Your task to perform on an android device: toggle notification dots Image 0: 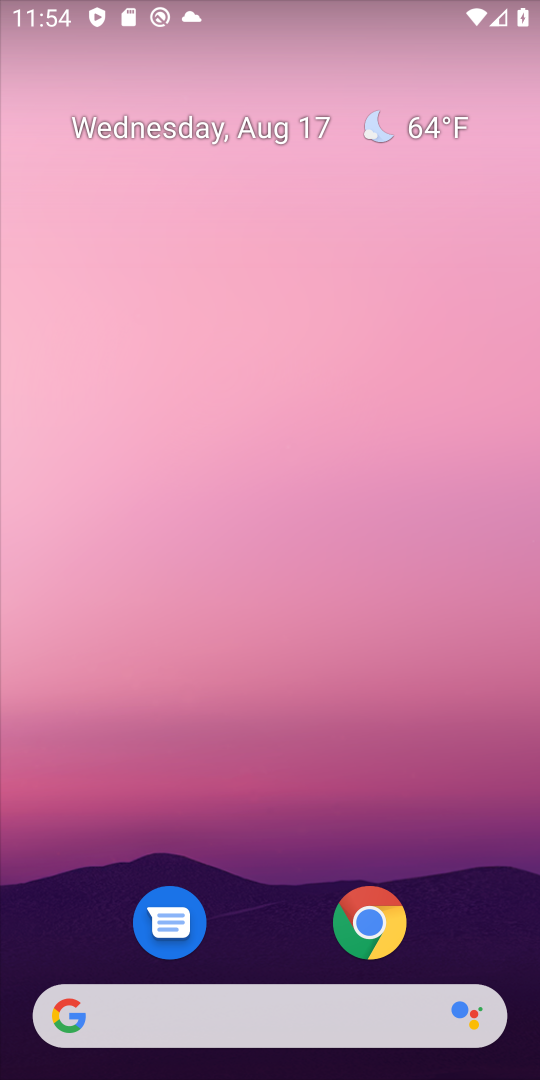
Step 0: drag from (252, 897) to (339, 69)
Your task to perform on an android device: toggle notification dots Image 1: 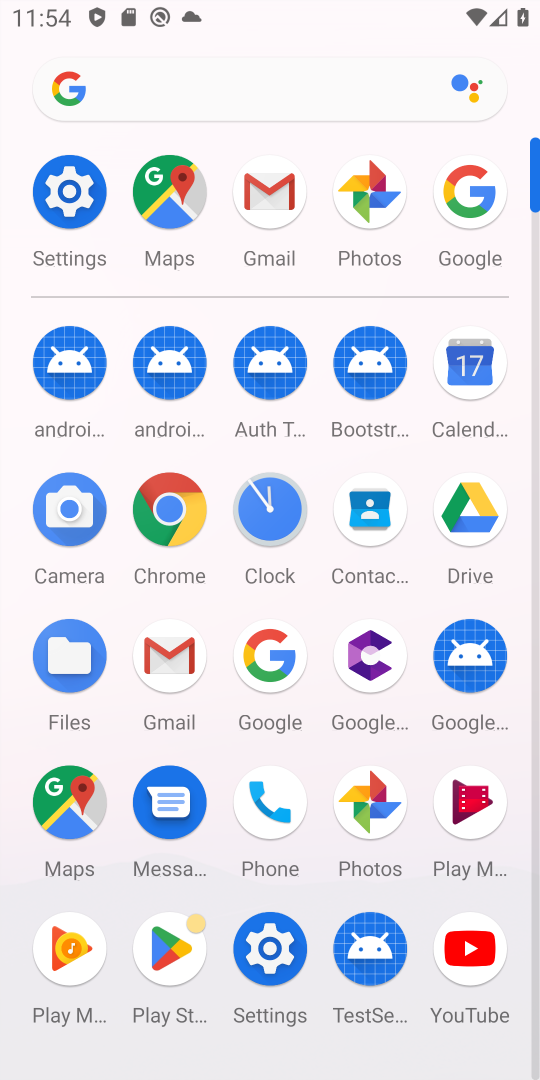
Step 1: click (71, 190)
Your task to perform on an android device: toggle notification dots Image 2: 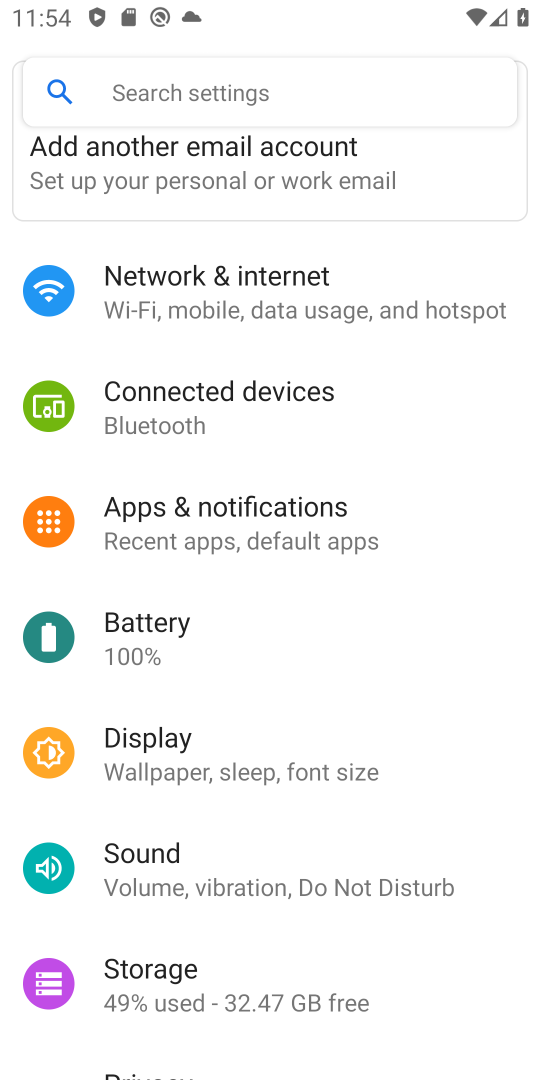
Step 2: click (251, 515)
Your task to perform on an android device: toggle notification dots Image 3: 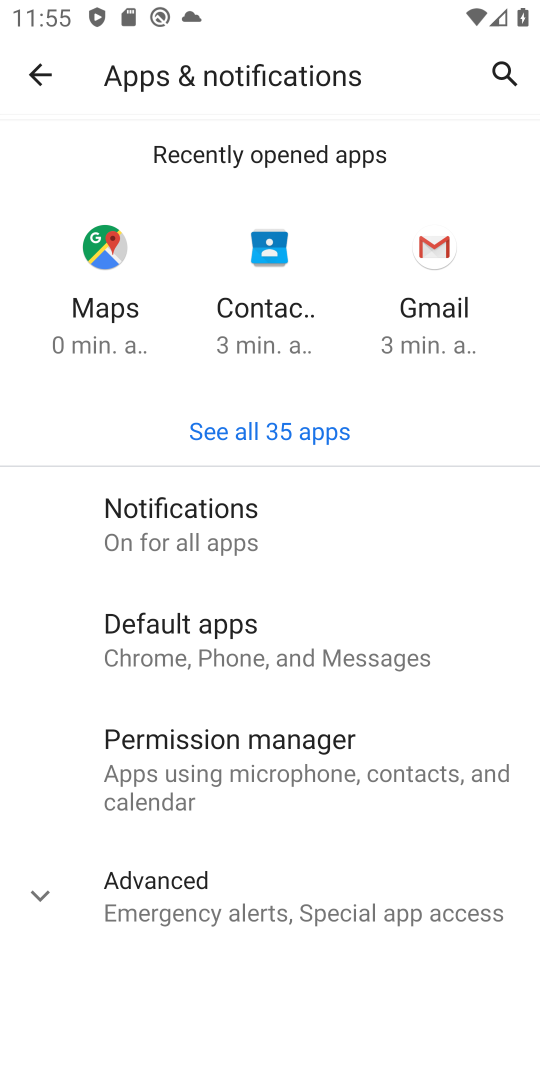
Step 3: click (181, 509)
Your task to perform on an android device: toggle notification dots Image 4: 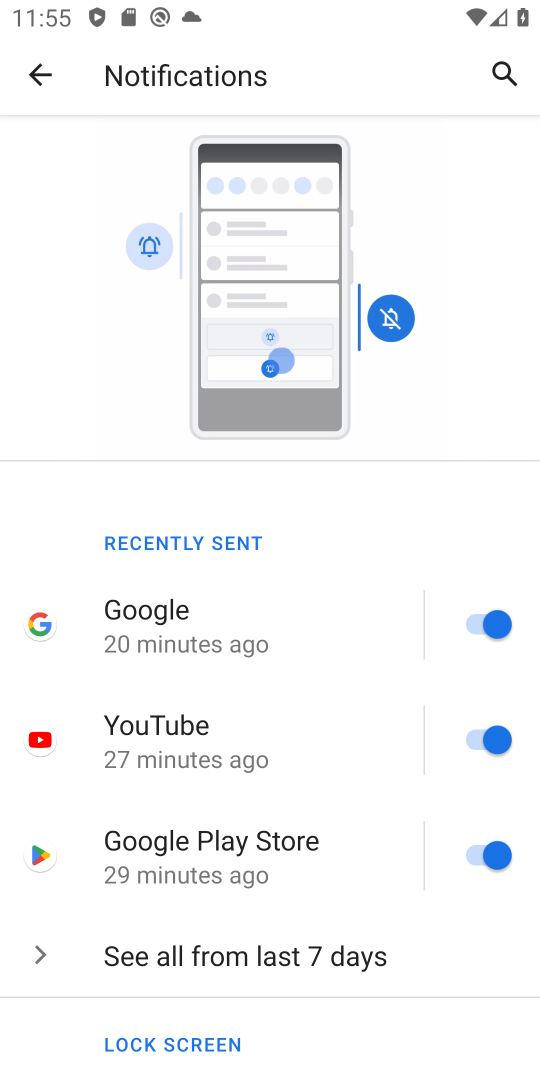
Step 4: drag from (317, 989) to (317, 488)
Your task to perform on an android device: toggle notification dots Image 5: 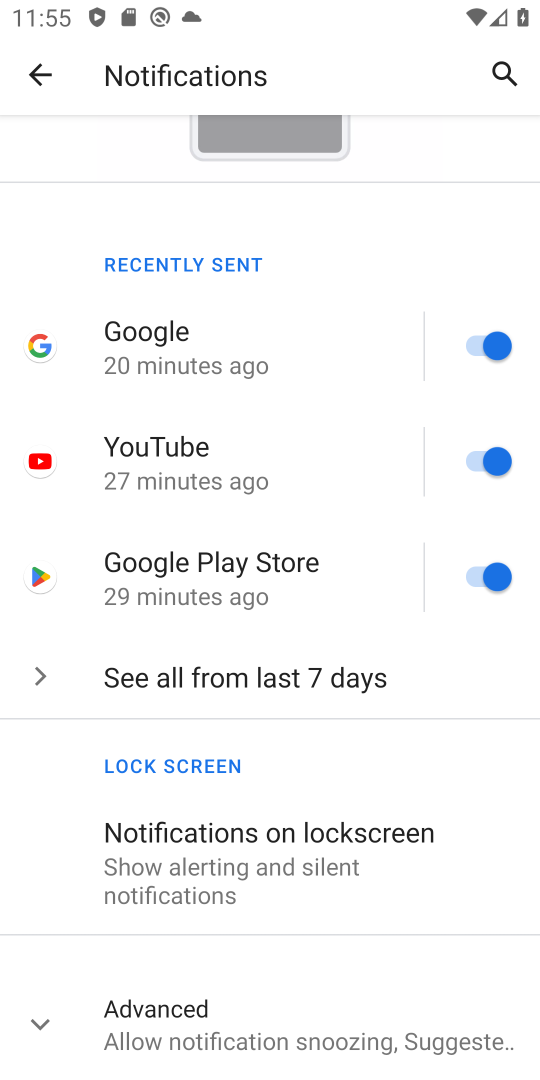
Step 5: drag from (337, 960) to (271, 520)
Your task to perform on an android device: toggle notification dots Image 6: 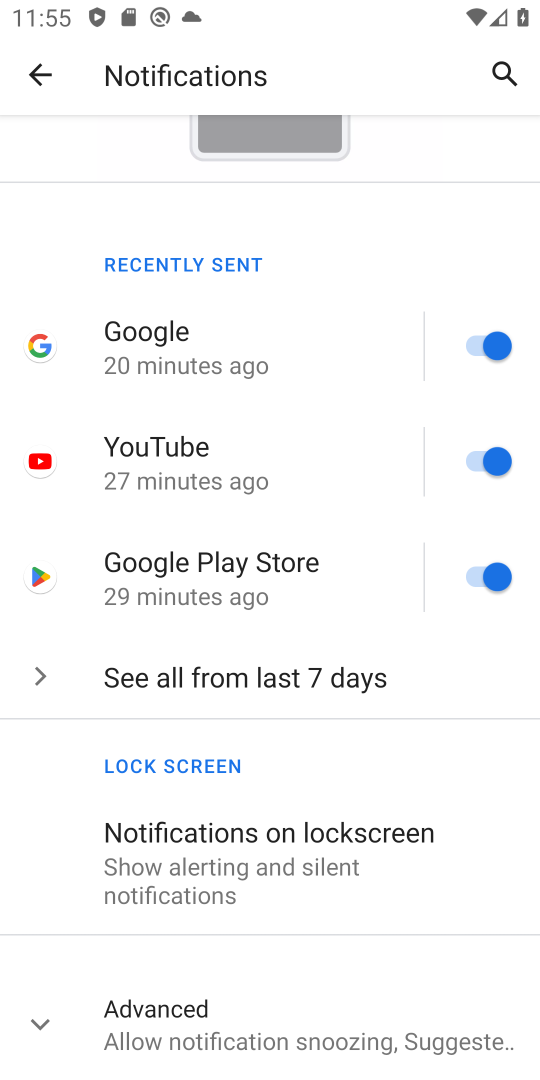
Step 6: click (42, 1014)
Your task to perform on an android device: toggle notification dots Image 7: 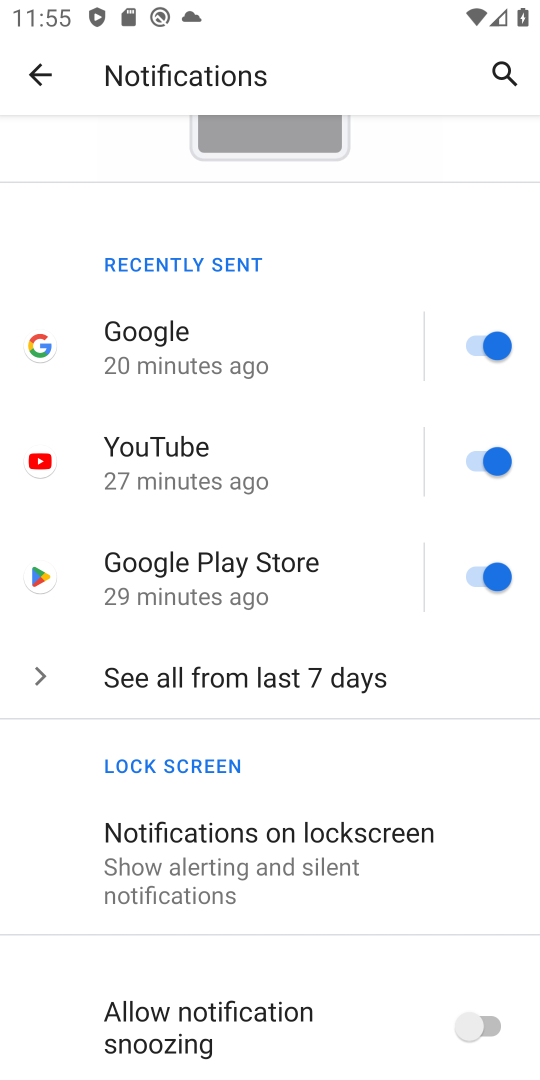
Step 7: drag from (345, 920) to (333, 624)
Your task to perform on an android device: toggle notification dots Image 8: 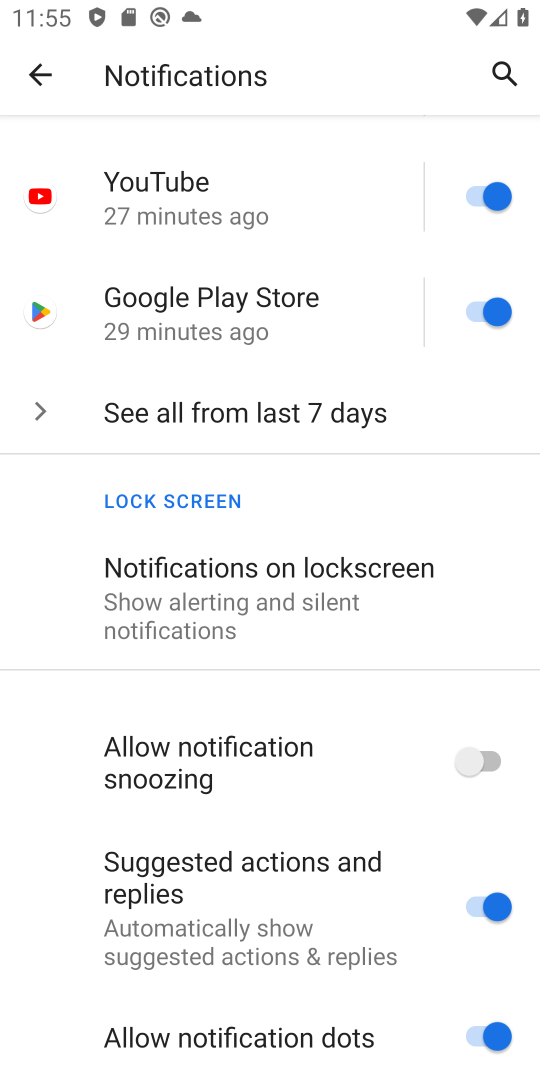
Step 8: click (483, 1034)
Your task to perform on an android device: toggle notification dots Image 9: 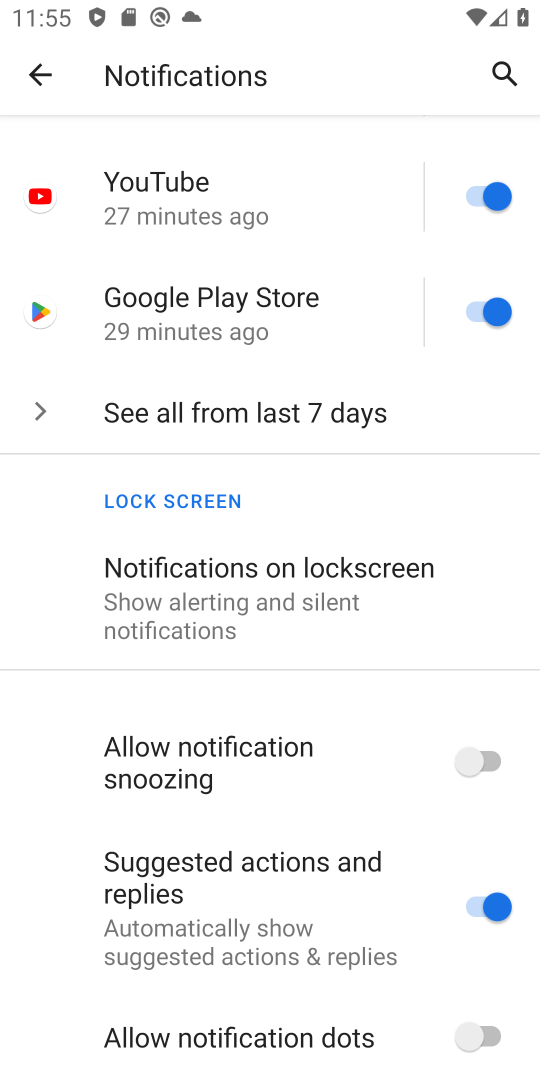
Step 9: task complete